Your task to perform on an android device: add a label to a message in the gmail app Image 0: 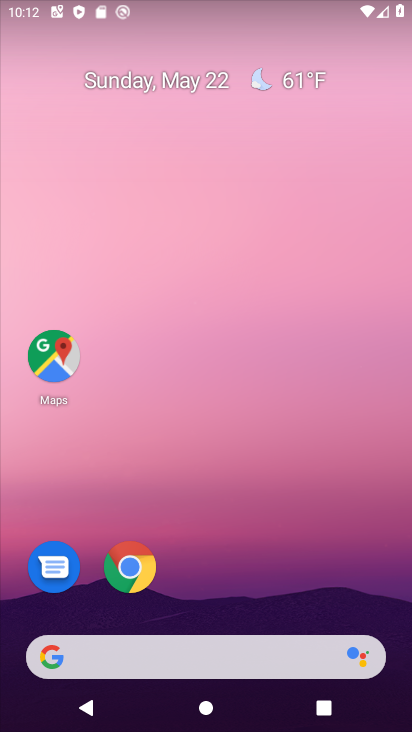
Step 0: drag from (235, 624) to (377, 548)
Your task to perform on an android device: add a label to a message in the gmail app Image 1: 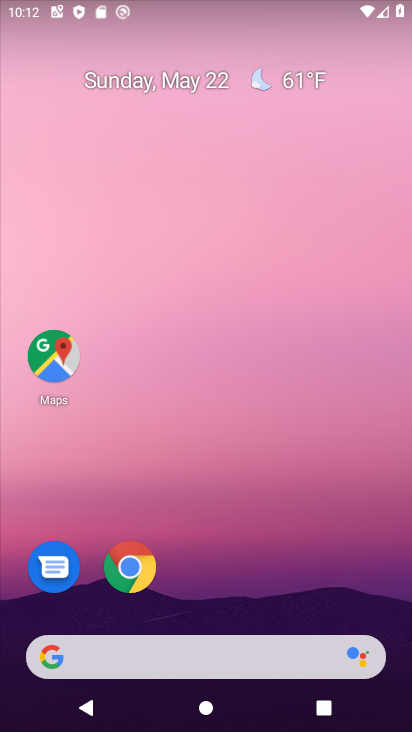
Step 1: drag from (178, 613) to (179, 15)
Your task to perform on an android device: add a label to a message in the gmail app Image 2: 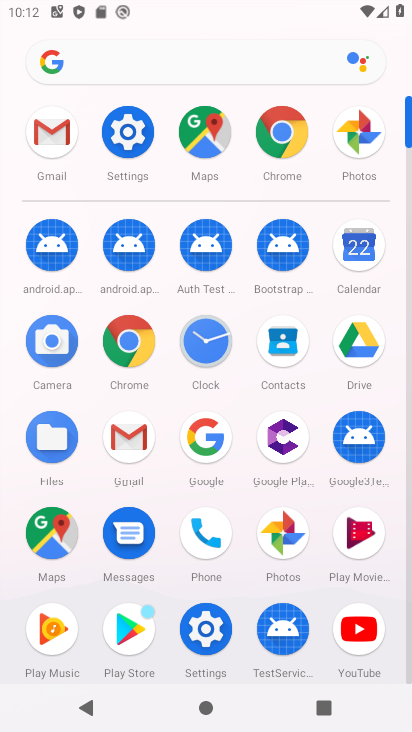
Step 2: click (139, 440)
Your task to perform on an android device: add a label to a message in the gmail app Image 3: 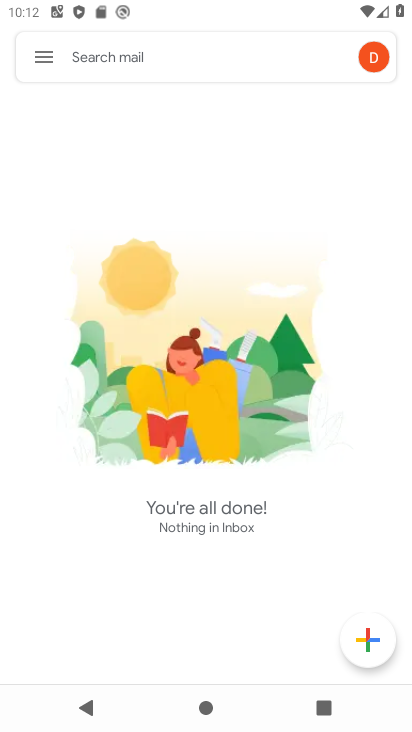
Step 3: task complete